Your task to perform on an android device: turn on improve location accuracy Image 0: 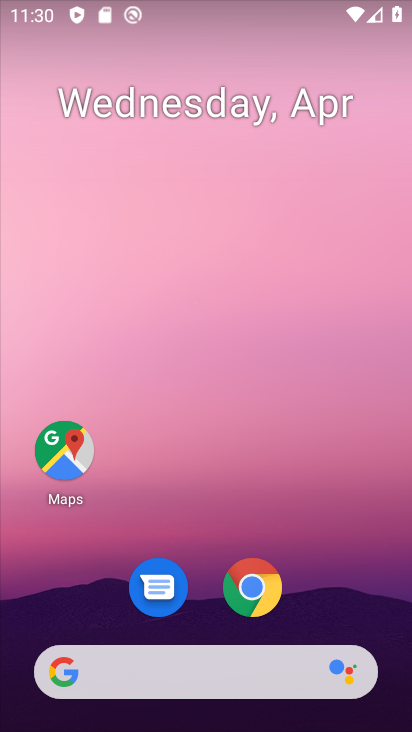
Step 0: drag from (251, 496) to (304, 235)
Your task to perform on an android device: turn on improve location accuracy Image 1: 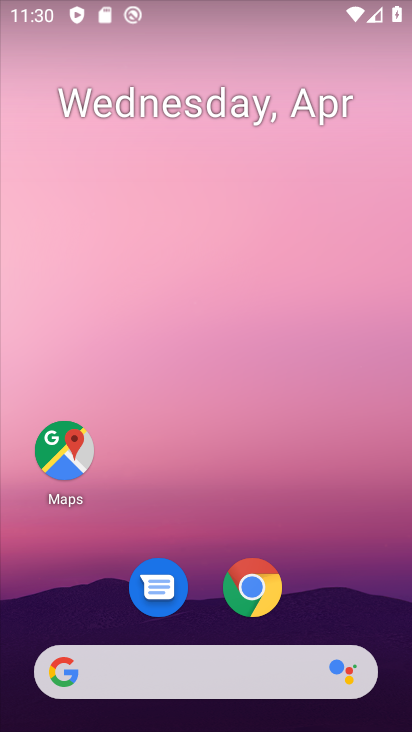
Step 1: drag from (174, 588) to (276, 77)
Your task to perform on an android device: turn on improve location accuracy Image 2: 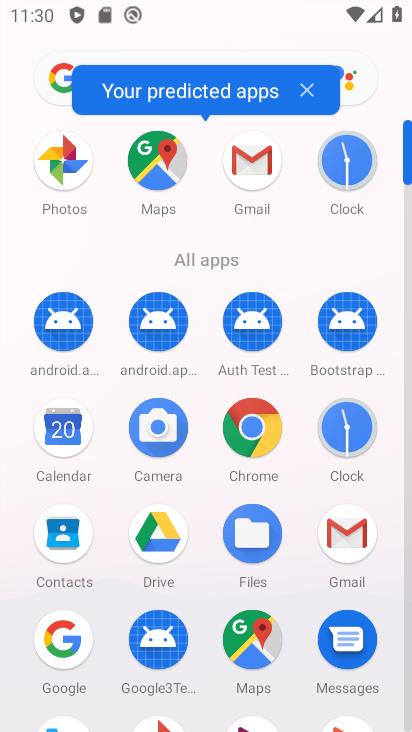
Step 2: drag from (244, 437) to (365, 124)
Your task to perform on an android device: turn on improve location accuracy Image 3: 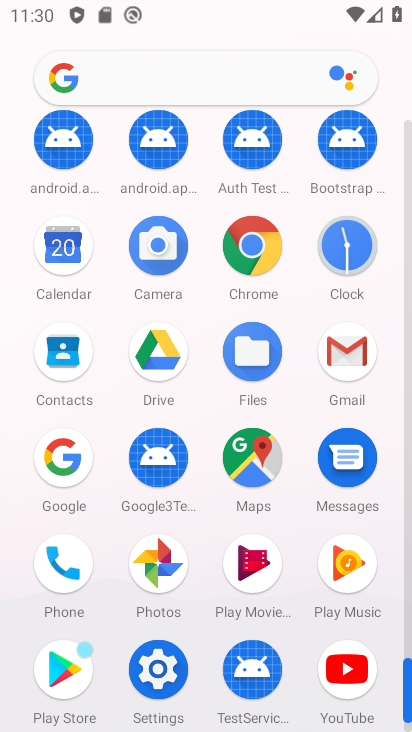
Step 3: click (171, 669)
Your task to perform on an android device: turn on improve location accuracy Image 4: 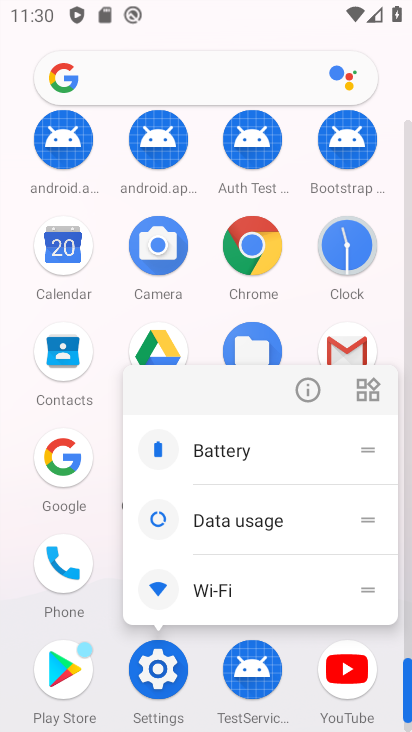
Step 4: click (165, 670)
Your task to perform on an android device: turn on improve location accuracy Image 5: 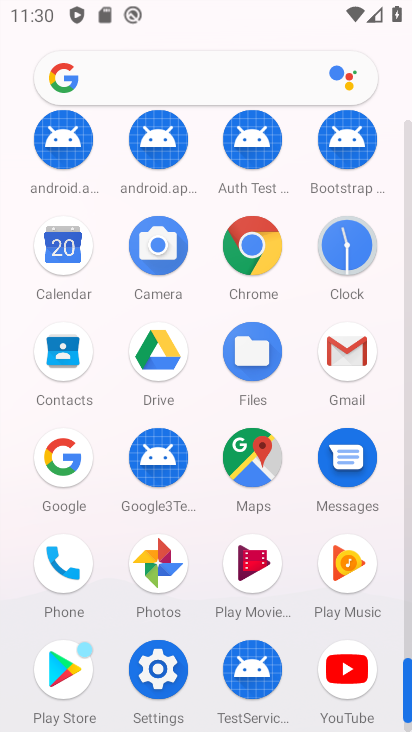
Step 5: click (160, 667)
Your task to perform on an android device: turn on improve location accuracy Image 6: 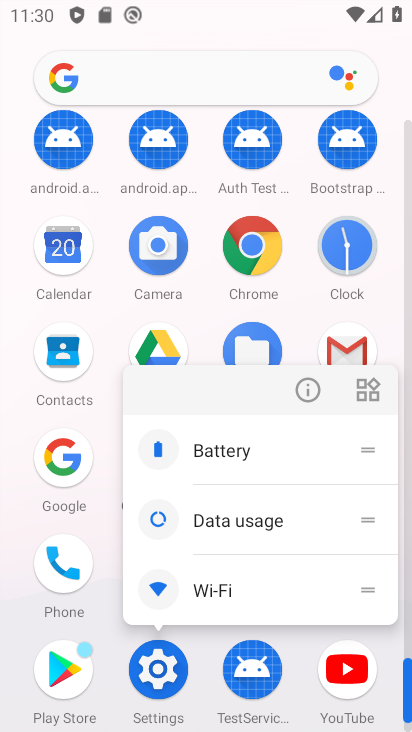
Step 6: click (152, 690)
Your task to perform on an android device: turn on improve location accuracy Image 7: 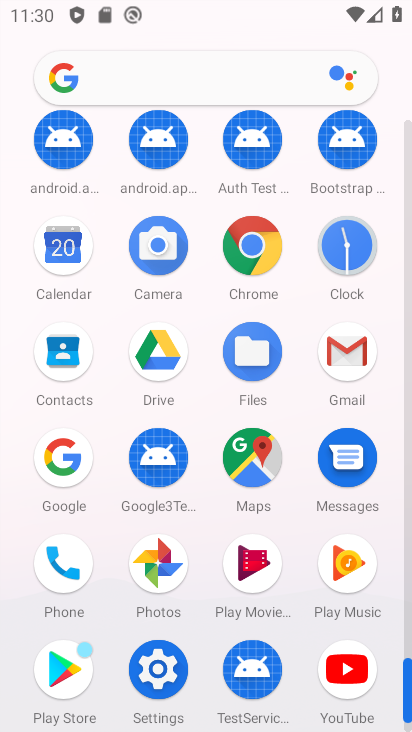
Step 7: click (145, 681)
Your task to perform on an android device: turn on improve location accuracy Image 8: 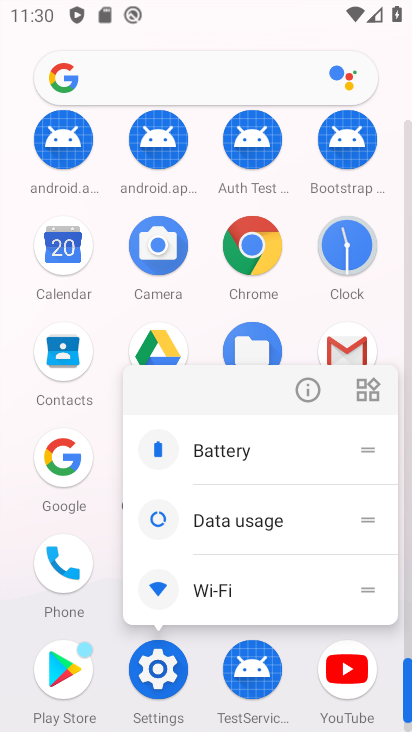
Step 8: click (160, 678)
Your task to perform on an android device: turn on improve location accuracy Image 9: 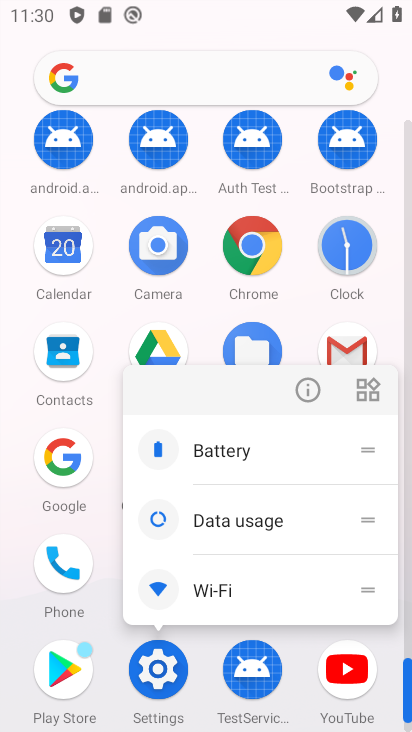
Step 9: click (175, 666)
Your task to perform on an android device: turn on improve location accuracy Image 10: 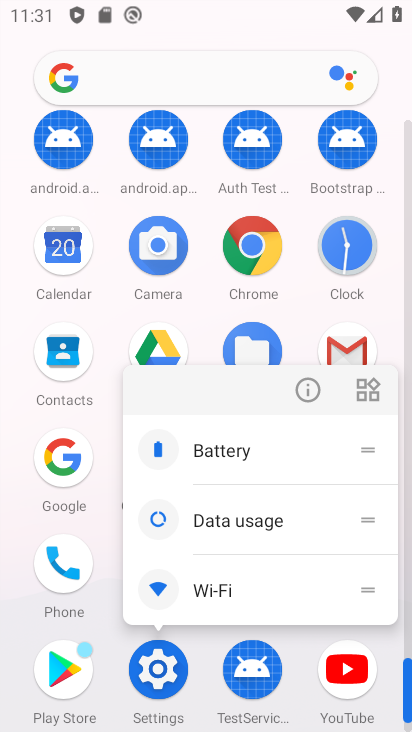
Step 10: click (173, 665)
Your task to perform on an android device: turn on improve location accuracy Image 11: 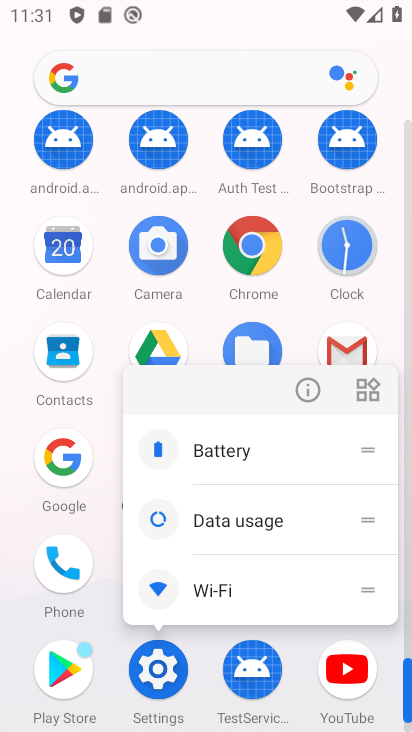
Step 11: click (154, 664)
Your task to perform on an android device: turn on improve location accuracy Image 12: 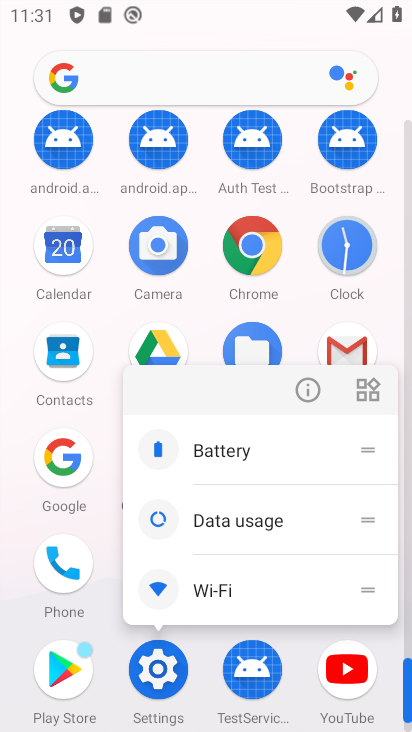
Step 12: click (160, 669)
Your task to perform on an android device: turn on improve location accuracy Image 13: 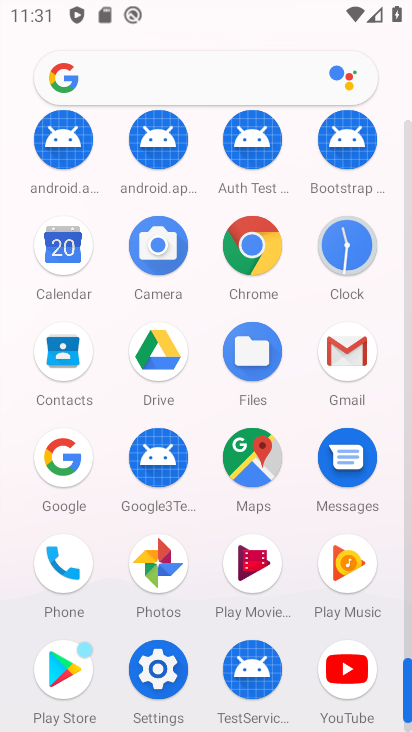
Step 13: click (167, 666)
Your task to perform on an android device: turn on improve location accuracy Image 14: 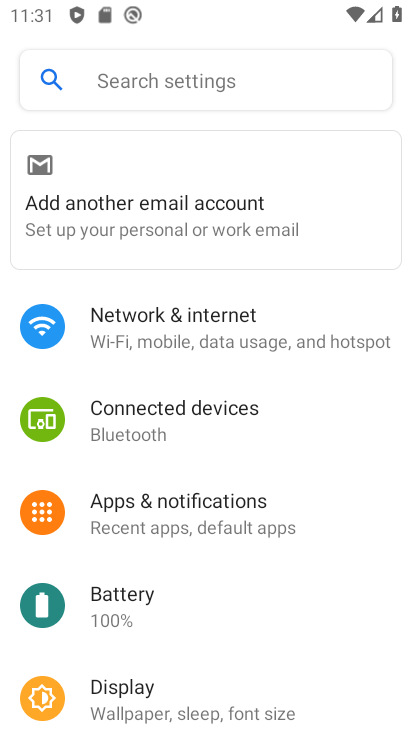
Step 14: drag from (194, 638) to (315, 278)
Your task to perform on an android device: turn on improve location accuracy Image 15: 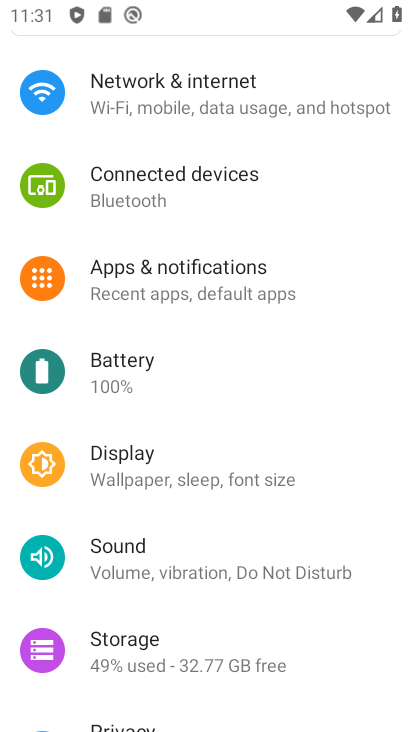
Step 15: drag from (144, 701) to (297, 272)
Your task to perform on an android device: turn on improve location accuracy Image 16: 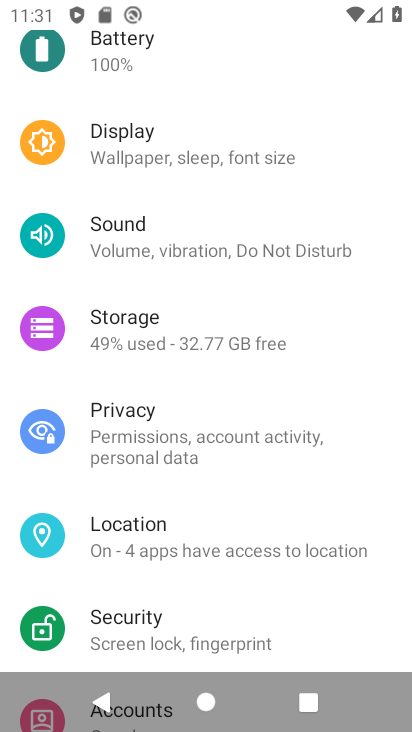
Step 16: click (142, 533)
Your task to perform on an android device: turn on improve location accuracy Image 17: 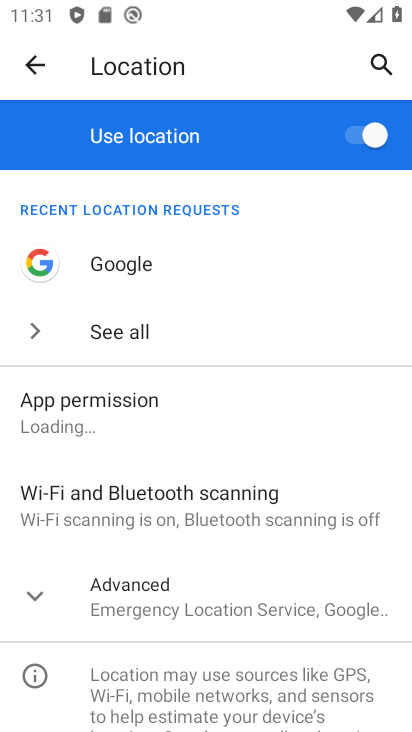
Step 17: click (205, 590)
Your task to perform on an android device: turn on improve location accuracy Image 18: 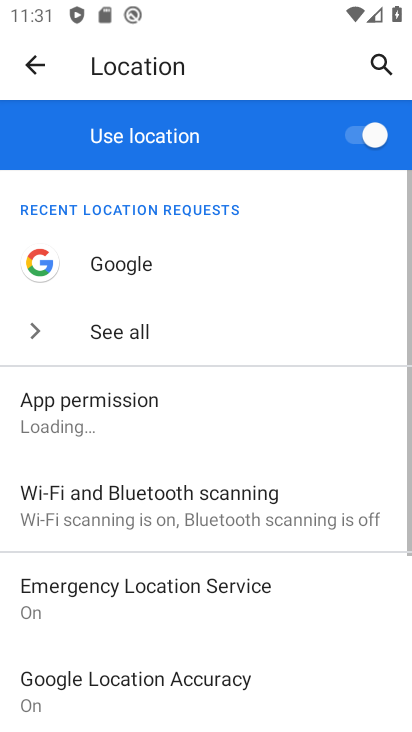
Step 18: drag from (207, 657) to (334, 257)
Your task to perform on an android device: turn on improve location accuracy Image 19: 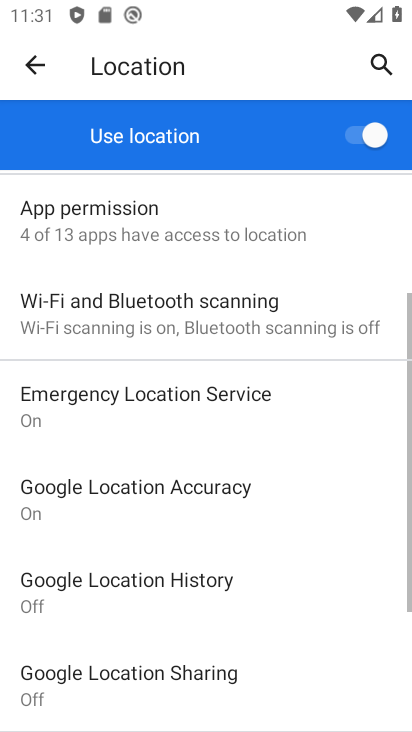
Step 19: click (214, 497)
Your task to perform on an android device: turn on improve location accuracy Image 20: 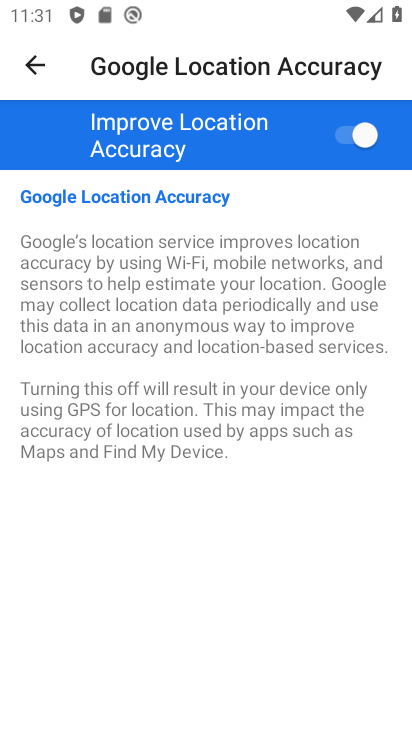
Step 20: task complete